Your task to perform on an android device: When is my next appointment? Image 0: 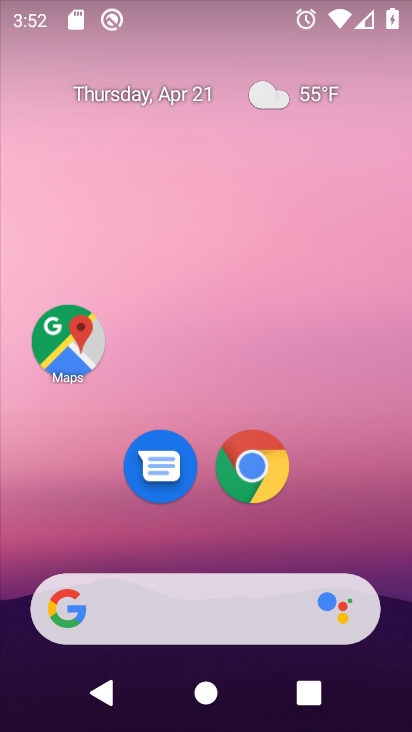
Step 0: drag from (247, 390) to (274, 66)
Your task to perform on an android device: When is my next appointment? Image 1: 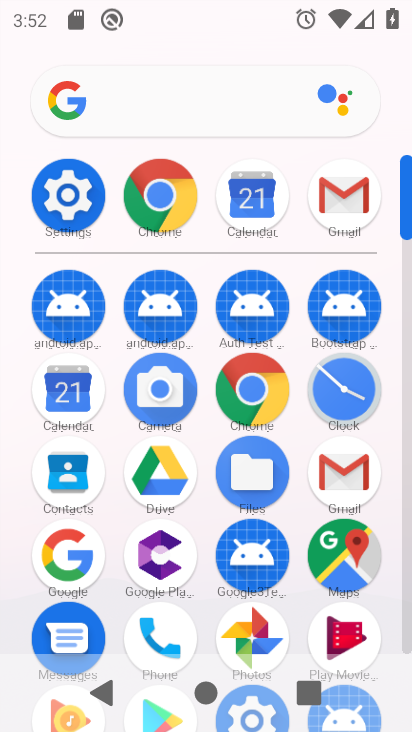
Step 1: click (86, 398)
Your task to perform on an android device: When is my next appointment? Image 2: 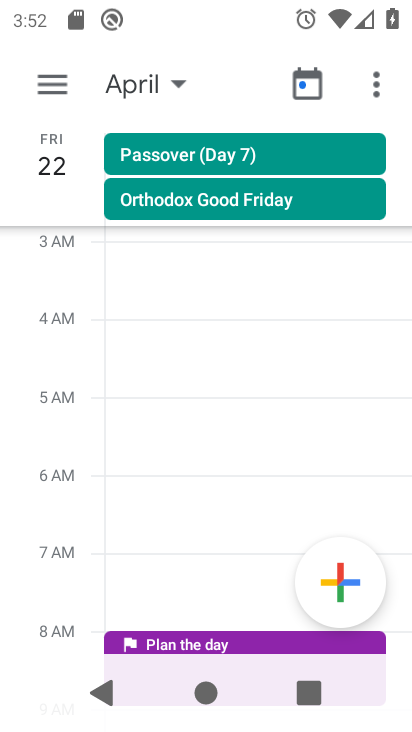
Step 2: task complete